Your task to perform on an android device: Search for vegetarian restaurants on Maps Image 0: 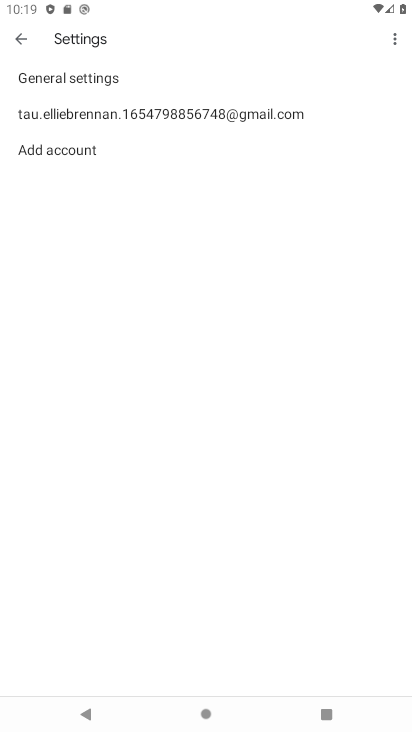
Step 0: press home button
Your task to perform on an android device: Search for vegetarian restaurants on Maps Image 1: 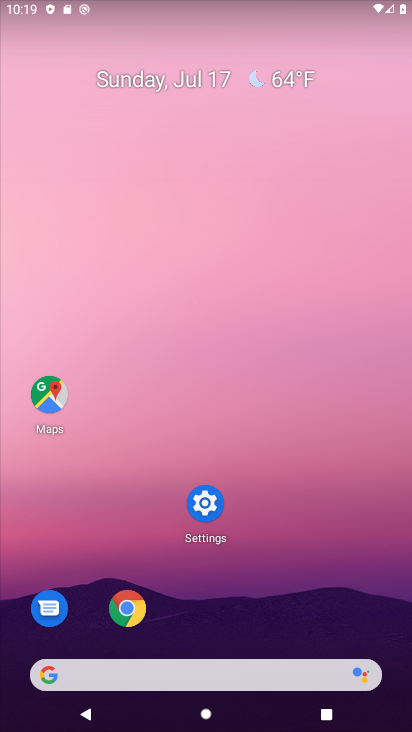
Step 1: click (58, 395)
Your task to perform on an android device: Search for vegetarian restaurants on Maps Image 2: 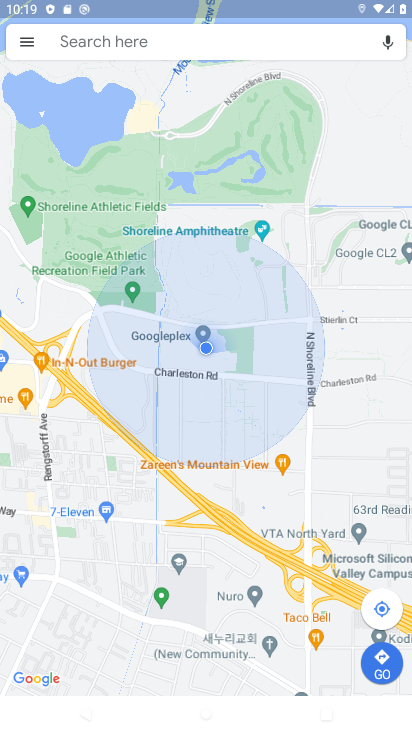
Step 2: click (149, 47)
Your task to perform on an android device: Search for vegetarian restaurants on Maps Image 3: 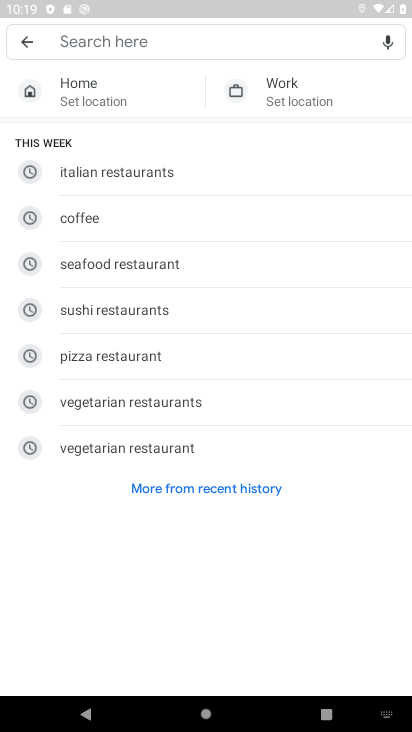
Step 3: type "vegetarian restaurants "
Your task to perform on an android device: Search for vegetarian restaurants on Maps Image 4: 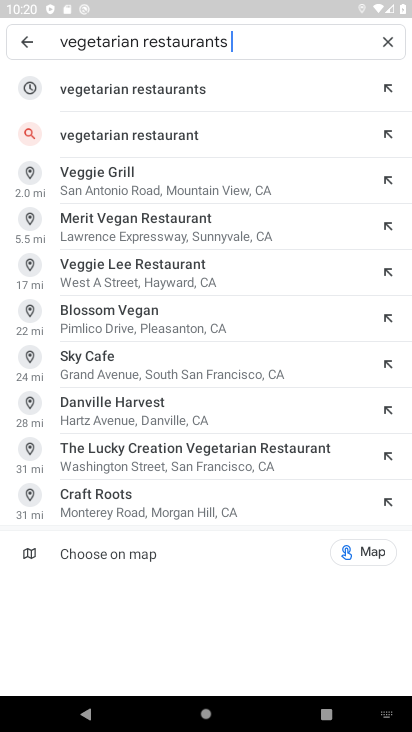
Step 4: click (150, 132)
Your task to perform on an android device: Search for vegetarian restaurants on Maps Image 5: 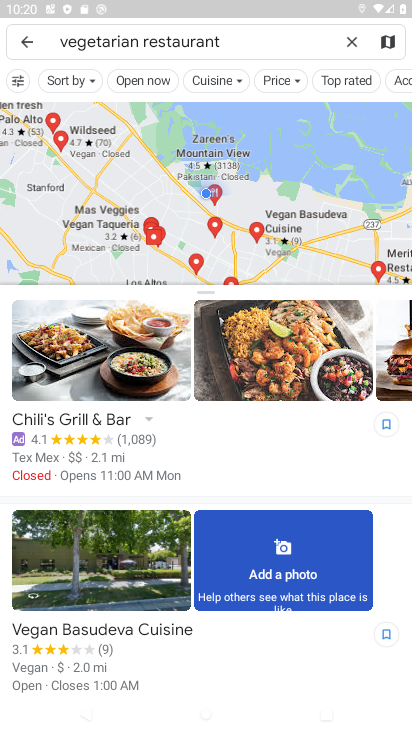
Step 5: task complete